Your task to perform on an android device: remove spam from my inbox in the gmail app Image 0: 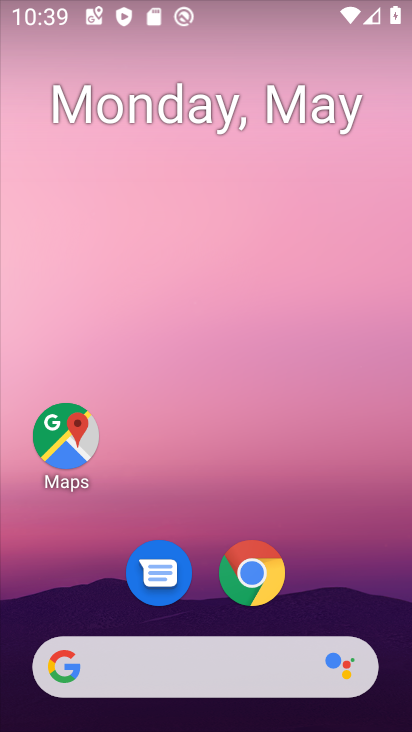
Step 0: drag from (193, 600) to (287, 24)
Your task to perform on an android device: remove spam from my inbox in the gmail app Image 1: 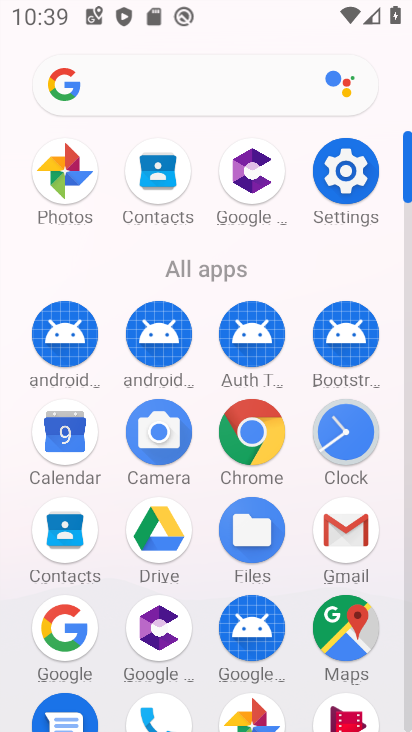
Step 1: click (350, 532)
Your task to perform on an android device: remove spam from my inbox in the gmail app Image 2: 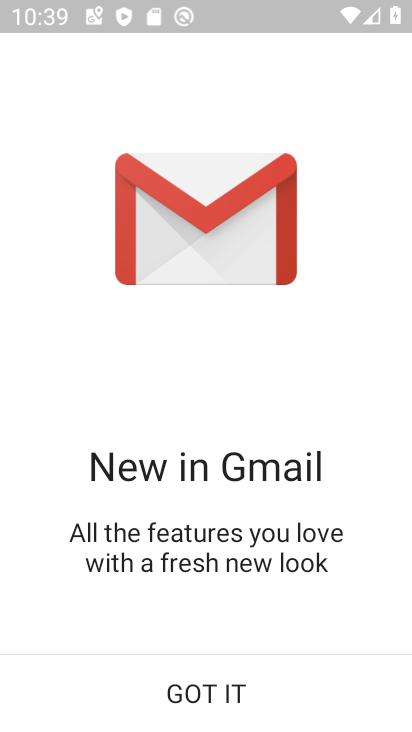
Step 2: click (222, 694)
Your task to perform on an android device: remove spam from my inbox in the gmail app Image 3: 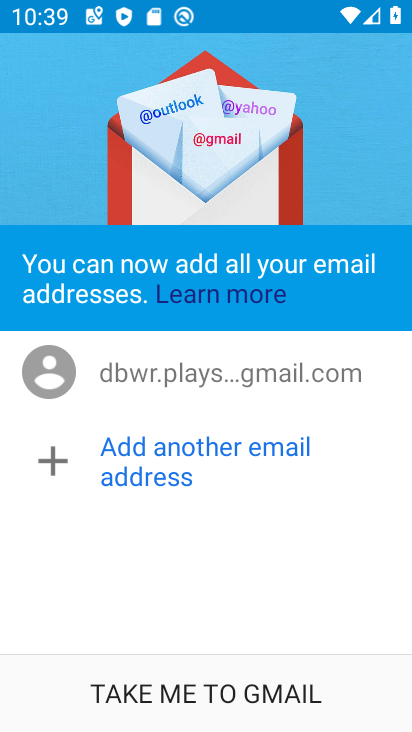
Step 3: click (192, 715)
Your task to perform on an android device: remove spam from my inbox in the gmail app Image 4: 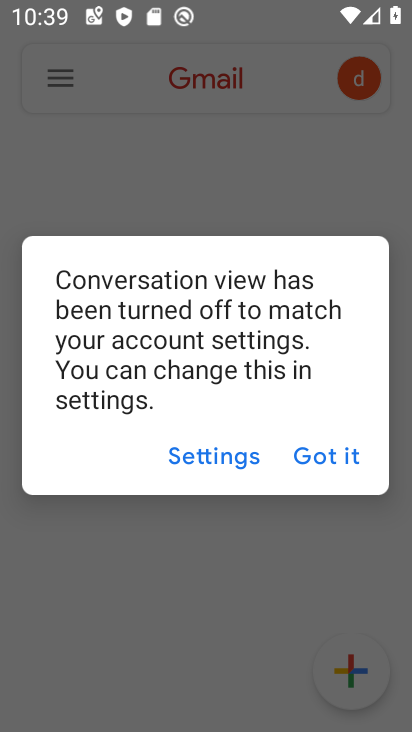
Step 4: click (329, 473)
Your task to perform on an android device: remove spam from my inbox in the gmail app Image 5: 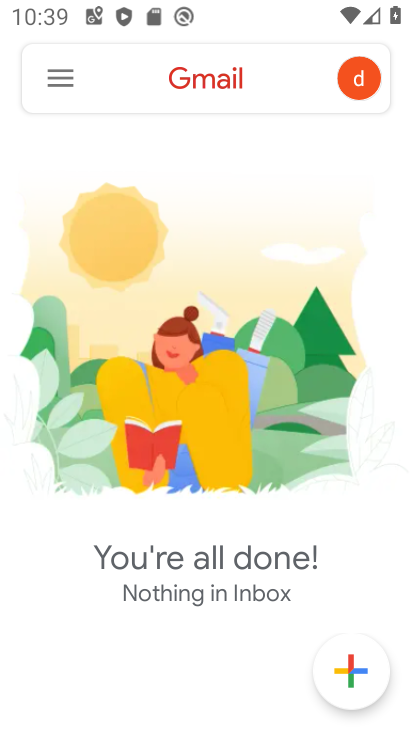
Step 5: click (40, 66)
Your task to perform on an android device: remove spam from my inbox in the gmail app Image 6: 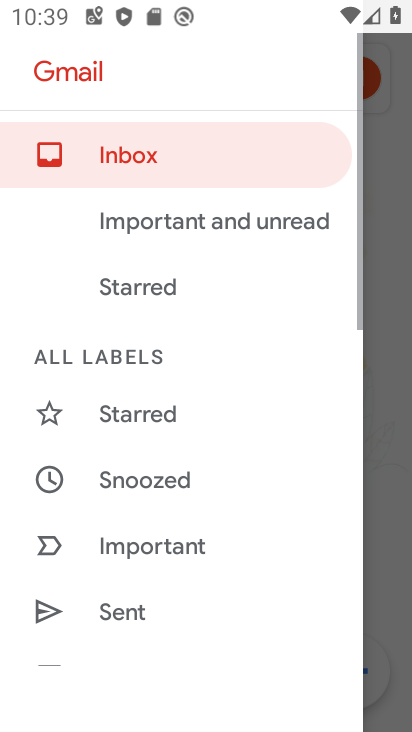
Step 6: drag from (161, 615) to (264, 56)
Your task to perform on an android device: remove spam from my inbox in the gmail app Image 7: 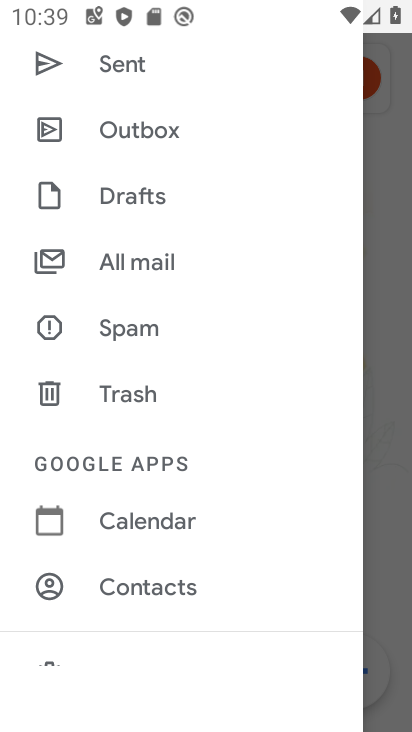
Step 7: click (150, 328)
Your task to perform on an android device: remove spam from my inbox in the gmail app Image 8: 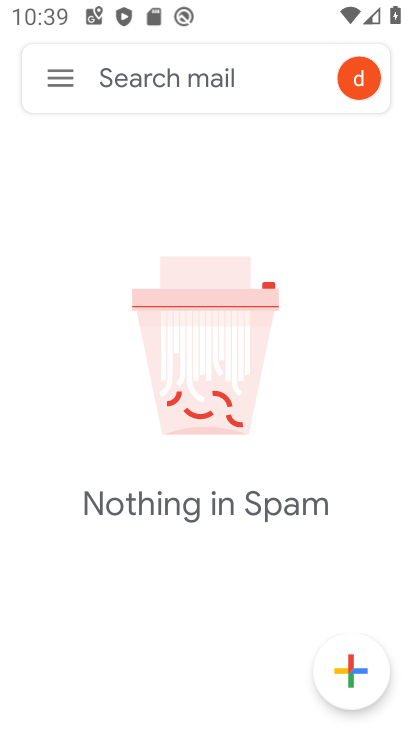
Step 8: task complete